Your task to perform on an android device: delete a single message in the gmail app Image 0: 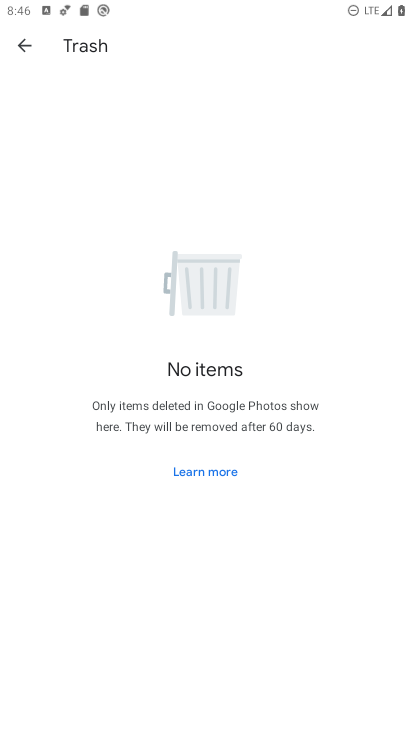
Step 0: press home button
Your task to perform on an android device: delete a single message in the gmail app Image 1: 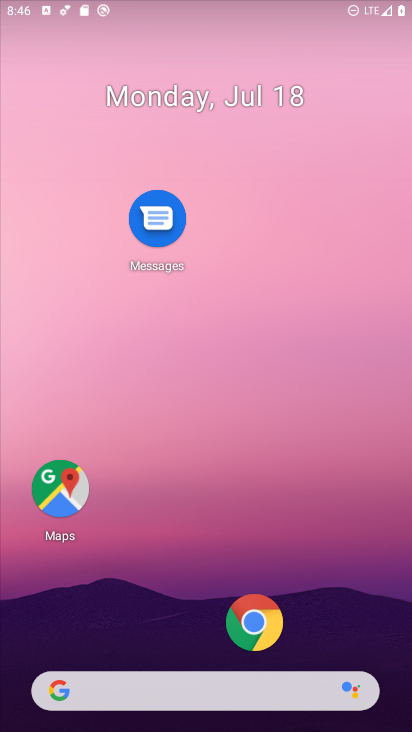
Step 1: drag from (279, 492) to (290, 270)
Your task to perform on an android device: delete a single message in the gmail app Image 2: 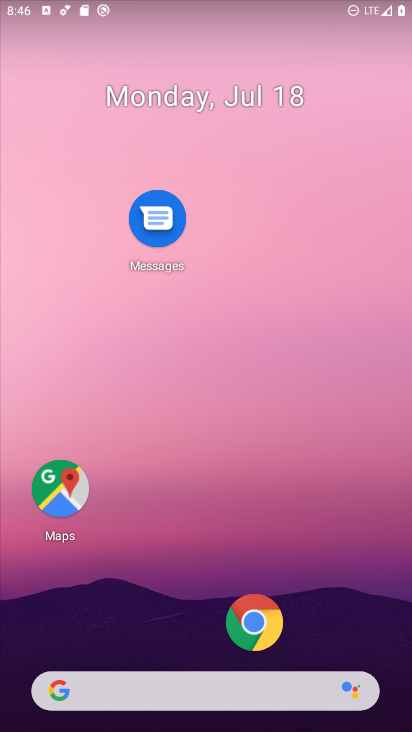
Step 2: drag from (145, 715) to (248, 95)
Your task to perform on an android device: delete a single message in the gmail app Image 3: 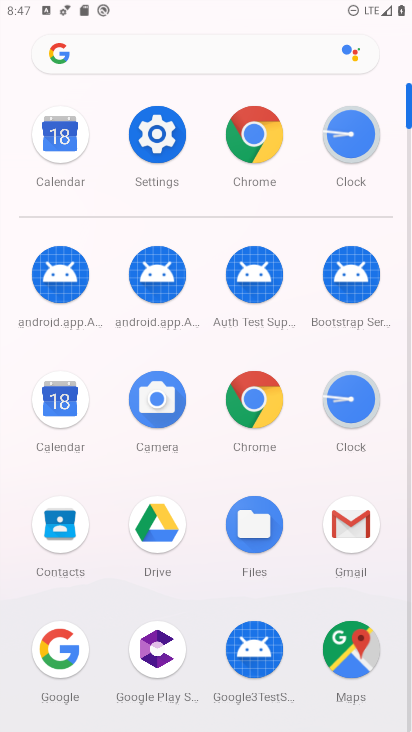
Step 3: click (358, 543)
Your task to perform on an android device: delete a single message in the gmail app Image 4: 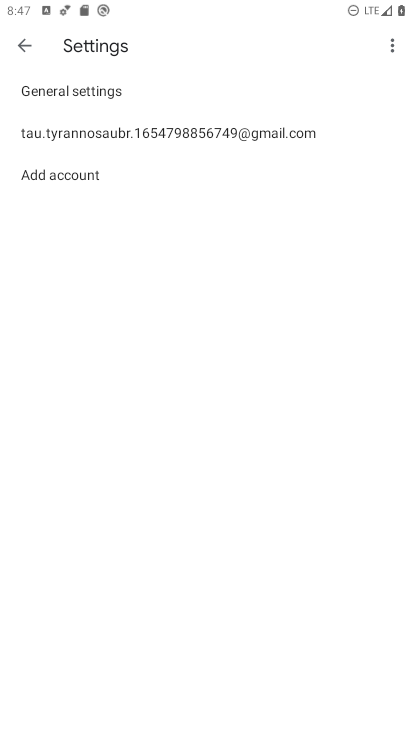
Step 4: click (37, 38)
Your task to perform on an android device: delete a single message in the gmail app Image 5: 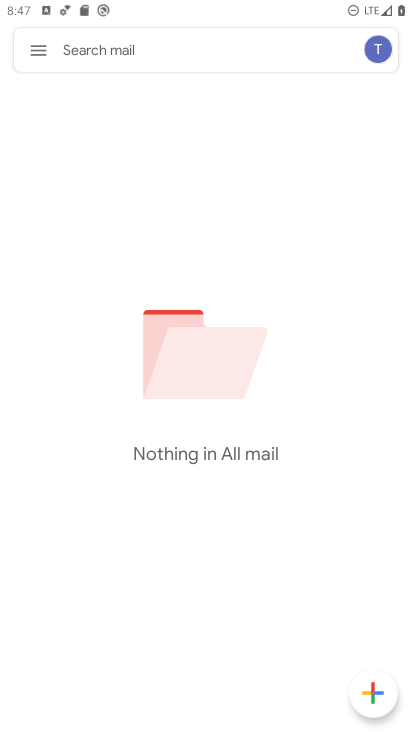
Step 5: click (37, 48)
Your task to perform on an android device: delete a single message in the gmail app Image 6: 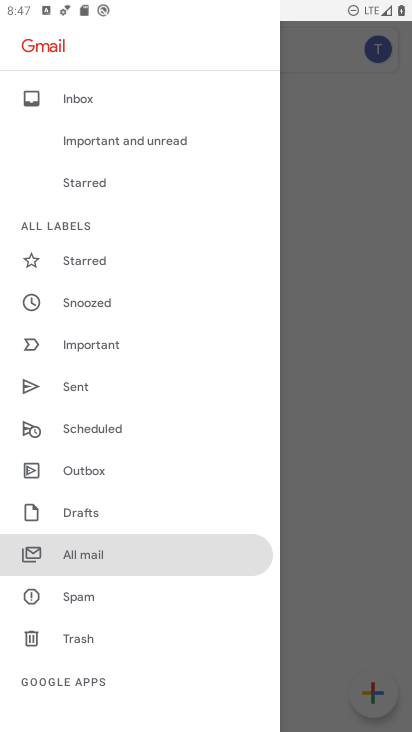
Step 6: click (92, 558)
Your task to perform on an android device: delete a single message in the gmail app Image 7: 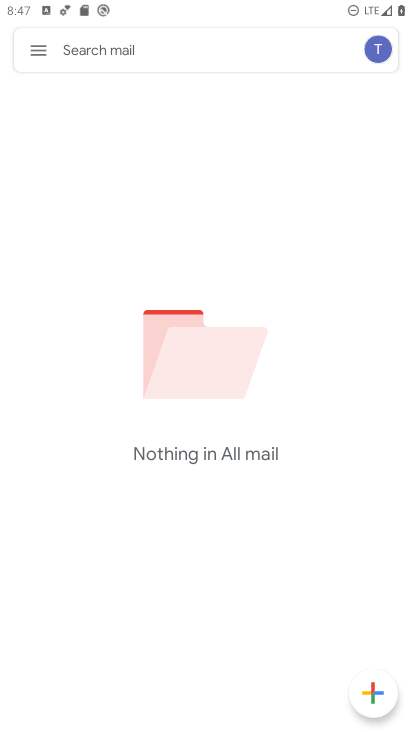
Step 7: task complete